Your task to perform on an android device: Is it going to rain tomorrow? Image 0: 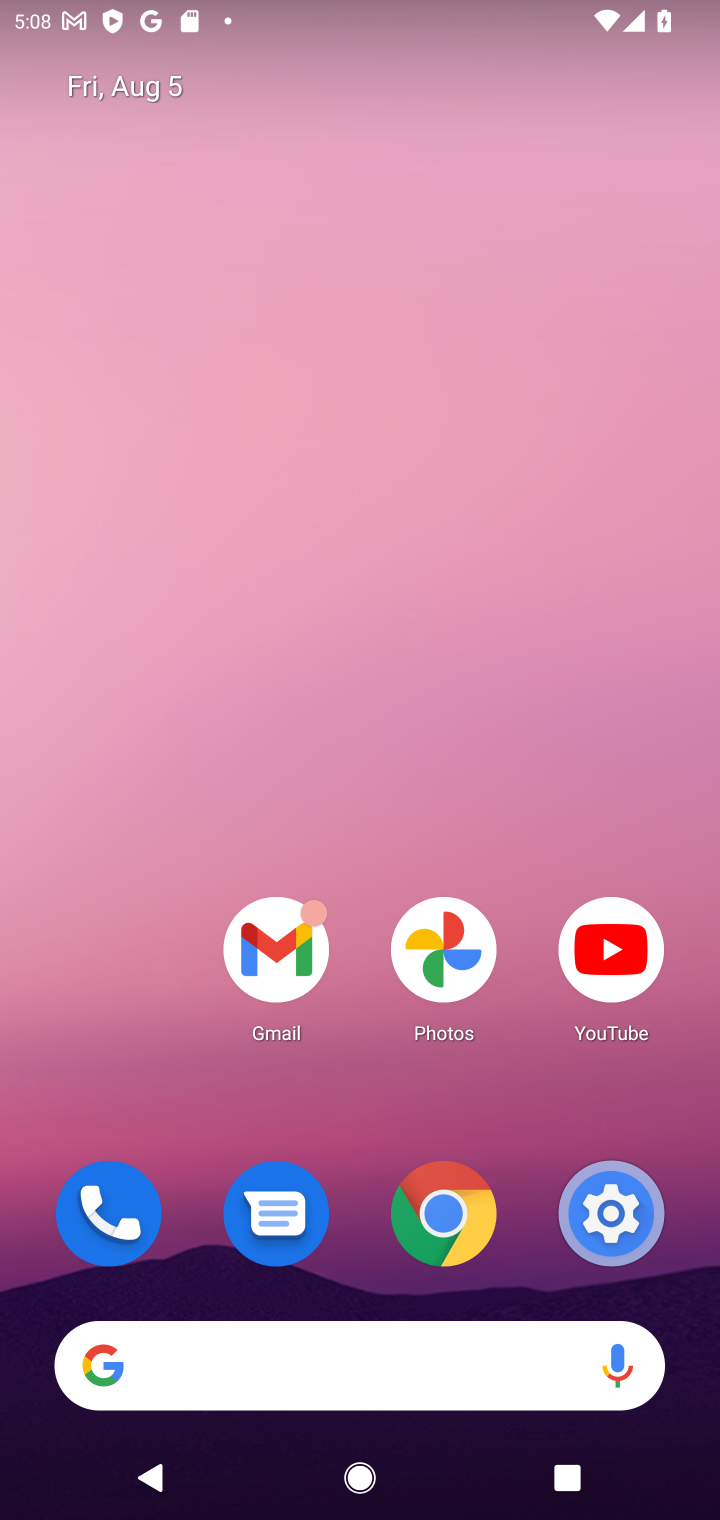
Step 0: click (348, 1362)
Your task to perform on an android device: Is it going to rain tomorrow? Image 1: 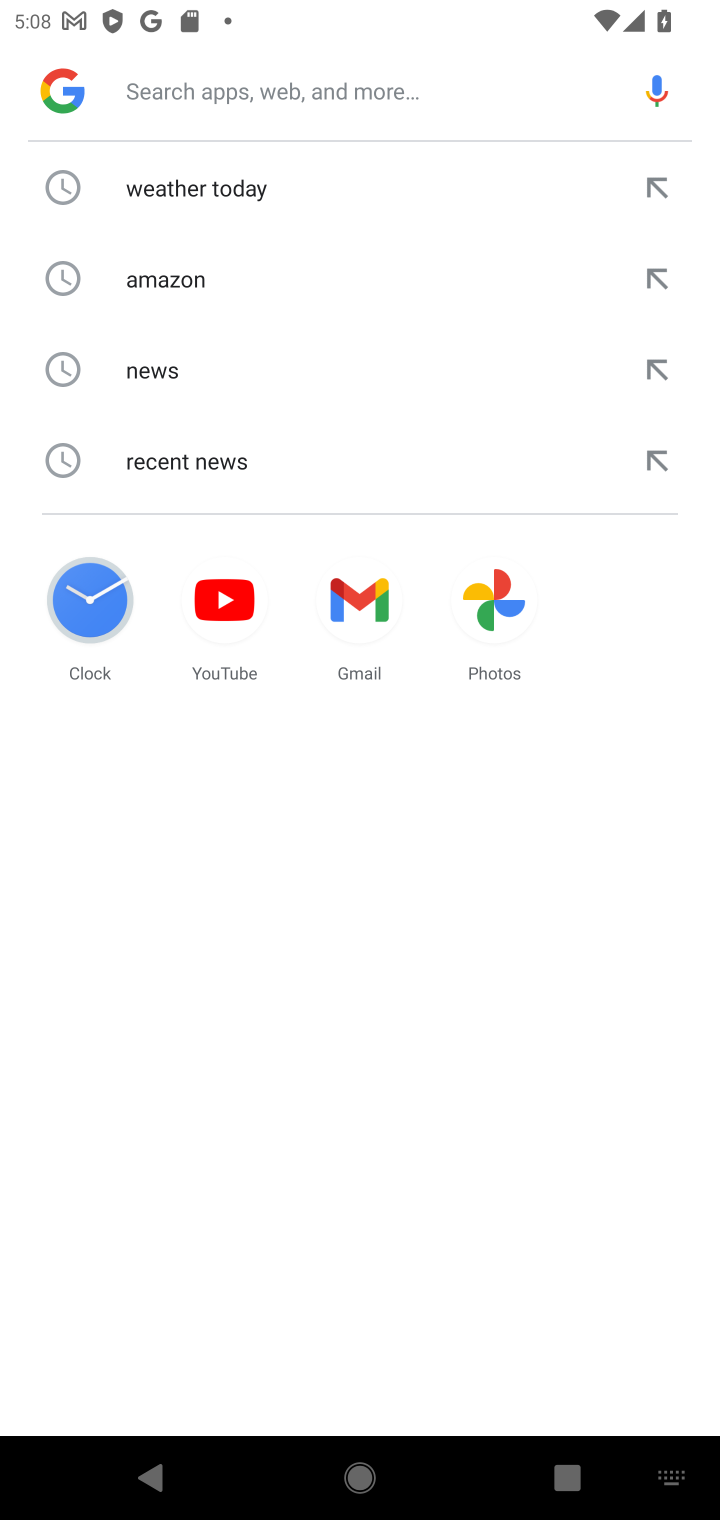
Step 1: click (225, 220)
Your task to perform on an android device: Is it going to rain tomorrow? Image 2: 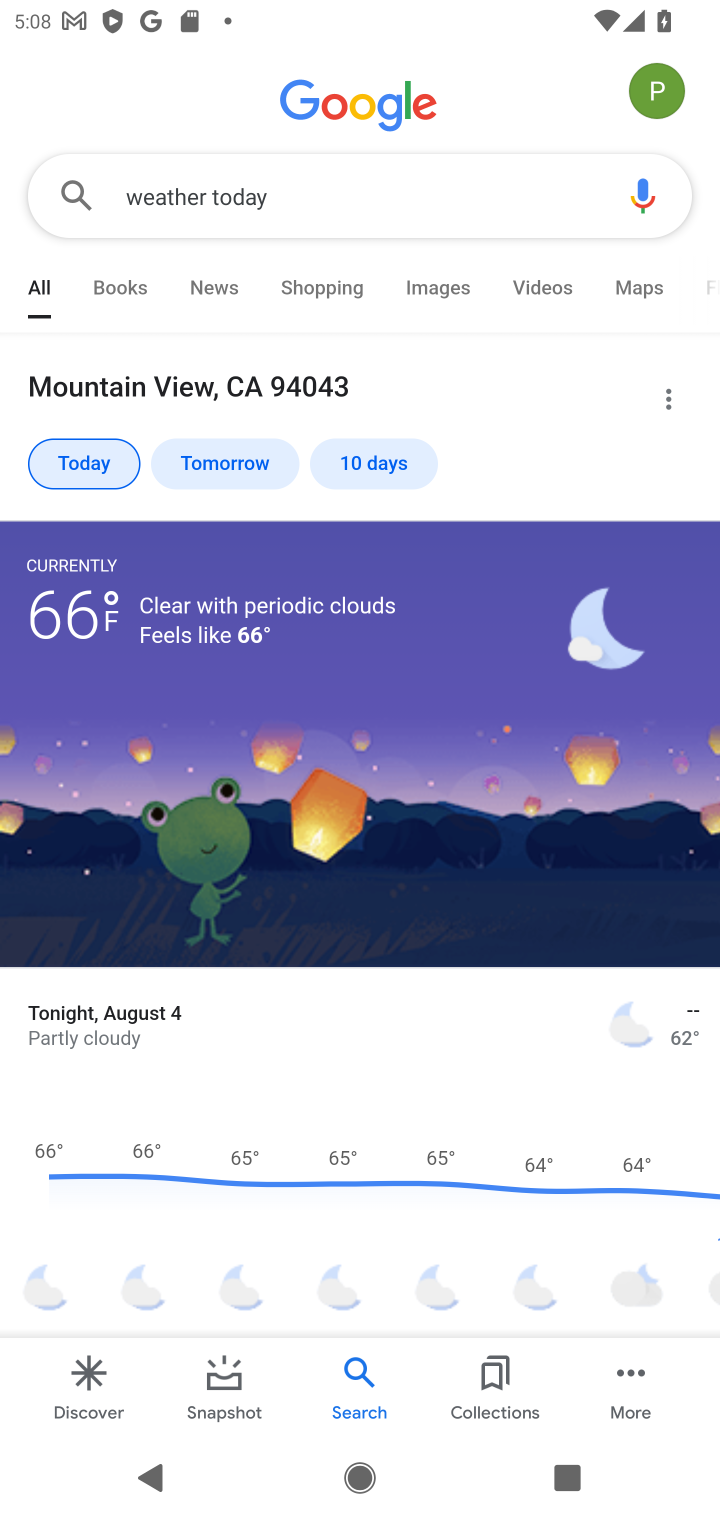
Step 2: task complete